Your task to perform on an android device: Open ESPN.com Image 0: 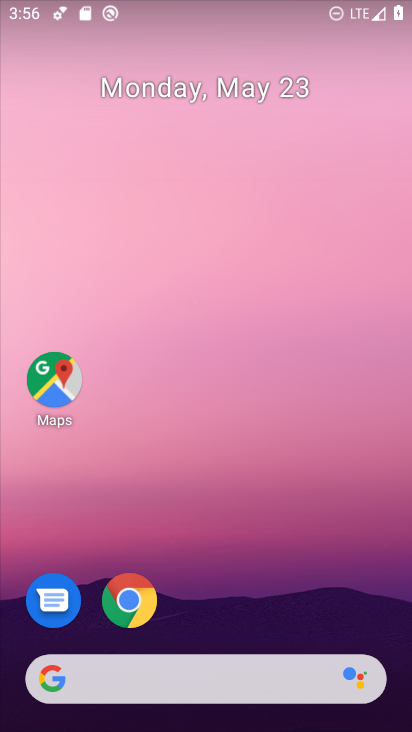
Step 0: click (141, 604)
Your task to perform on an android device: Open ESPN.com Image 1: 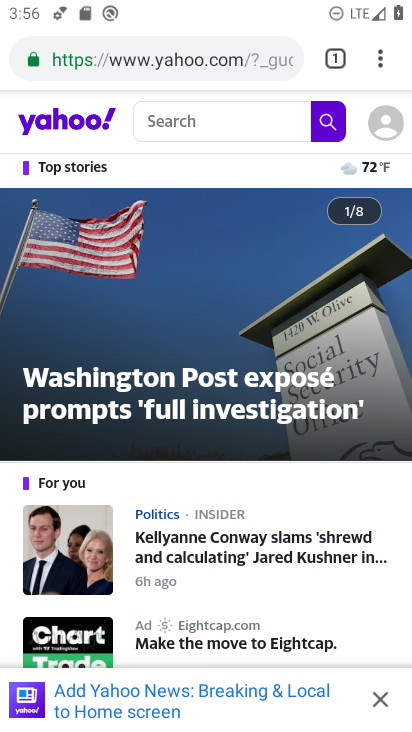
Step 1: click (126, 62)
Your task to perform on an android device: Open ESPN.com Image 2: 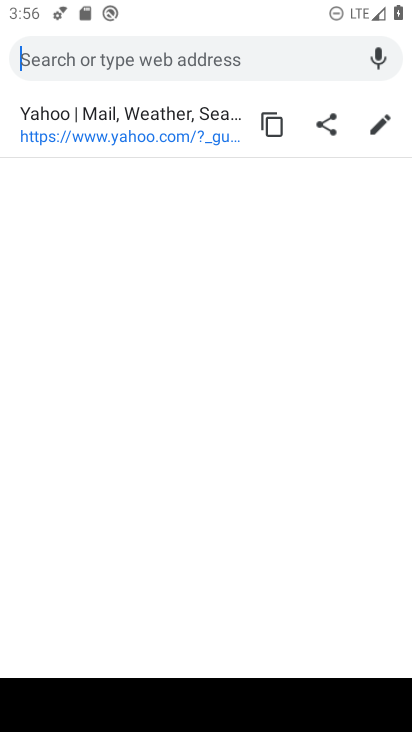
Step 2: type "espn.com"
Your task to perform on an android device: Open ESPN.com Image 3: 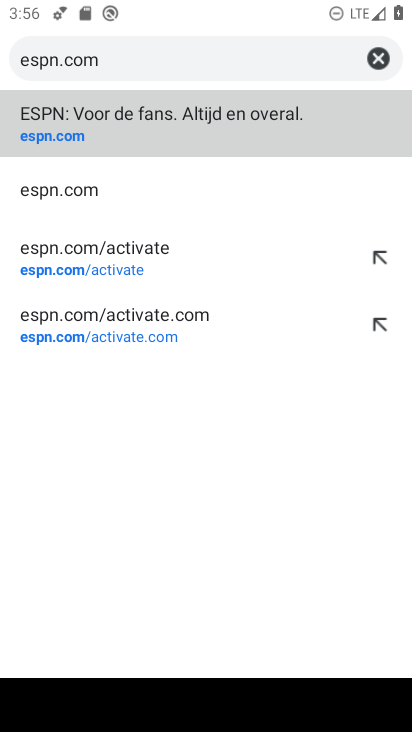
Step 3: click (60, 192)
Your task to perform on an android device: Open ESPN.com Image 4: 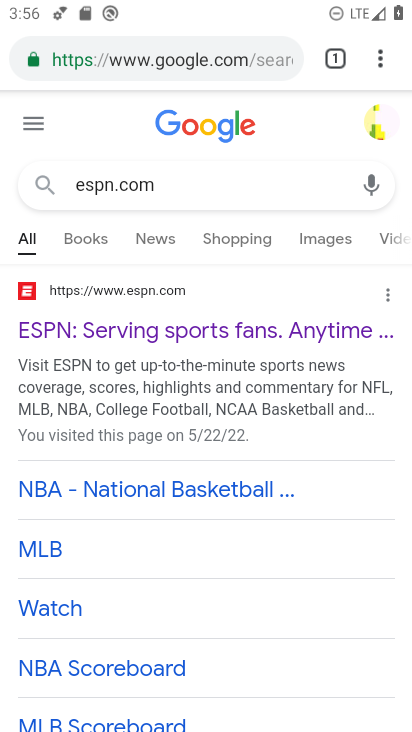
Step 4: click (80, 288)
Your task to perform on an android device: Open ESPN.com Image 5: 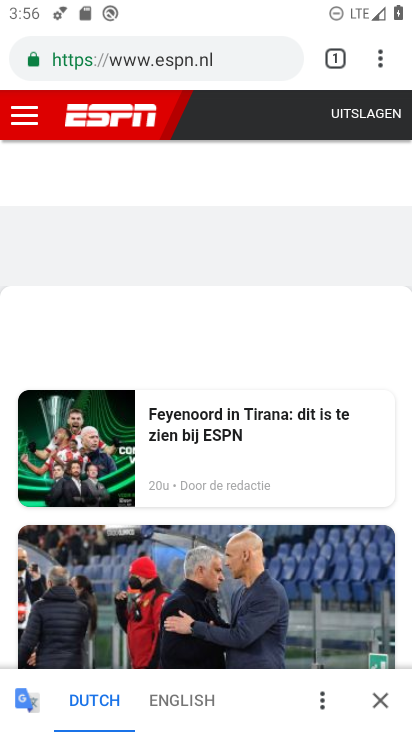
Step 5: task complete